Your task to perform on an android device: empty trash in the gmail app Image 0: 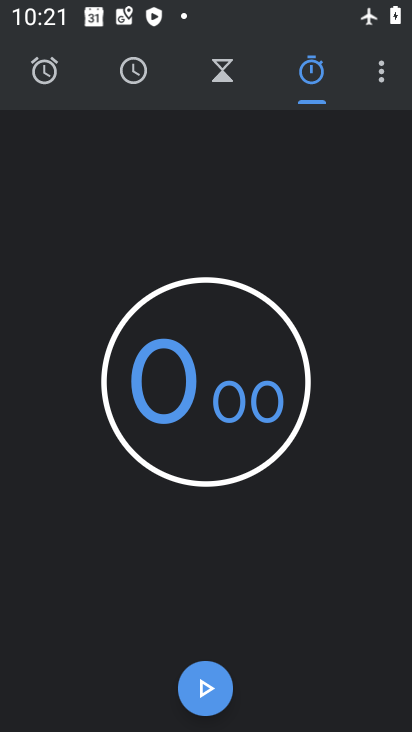
Step 0: press home button
Your task to perform on an android device: empty trash in the gmail app Image 1: 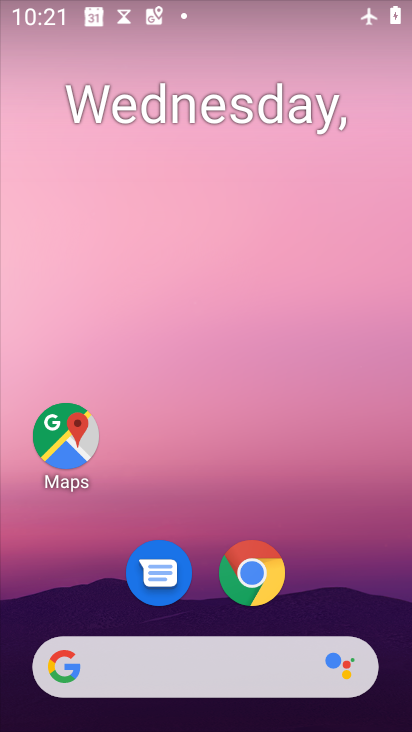
Step 1: drag from (305, 595) to (285, 283)
Your task to perform on an android device: empty trash in the gmail app Image 2: 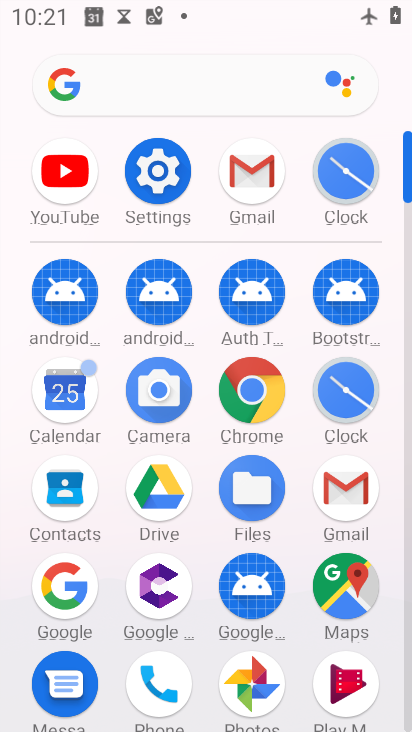
Step 2: click (349, 480)
Your task to perform on an android device: empty trash in the gmail app Image 3: 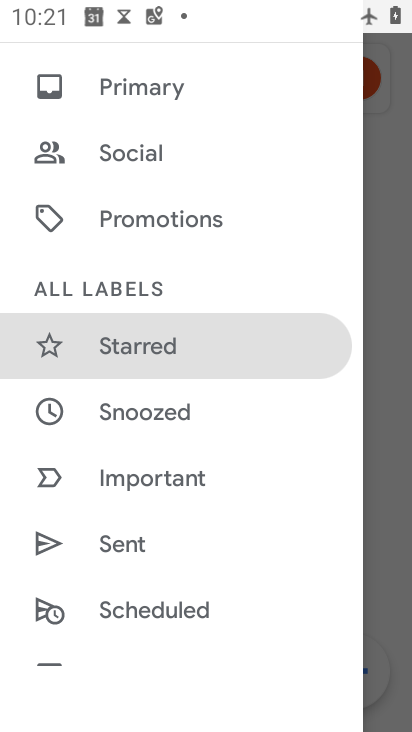
Step 3: drag from (165, 516) to (186, 218)
Your task to perform on an android device: empty trash in the gmail app Image 4: 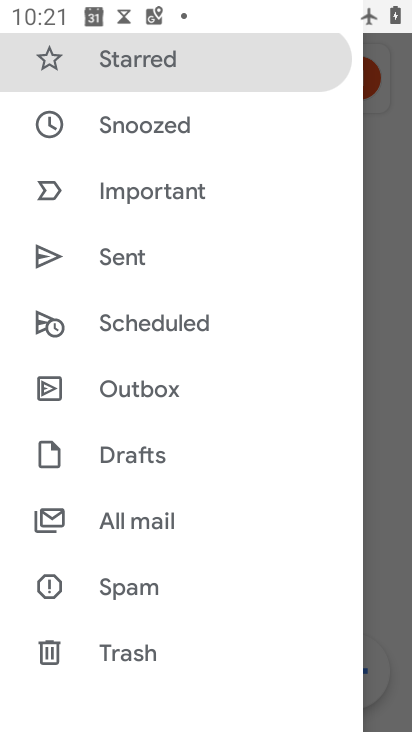
Step 4: click (128, 642)
Your task to perform on an android device: empty trash in the gmail app Image 5: 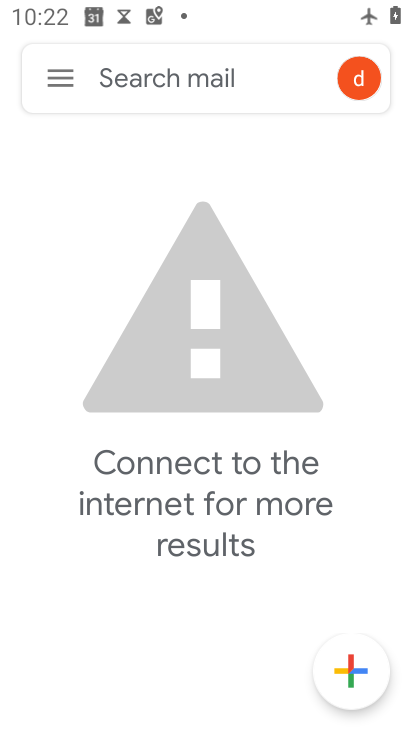
Step 5: task complete